Your task to perform on an android device: What's on my calendar today? Image 0: 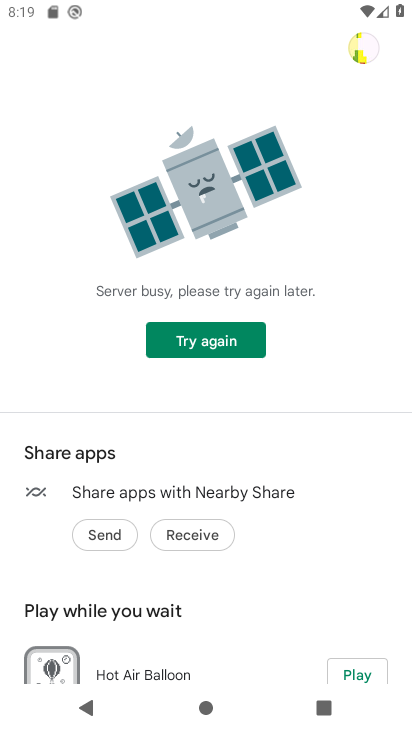
Step 0: press home button
Your task to perform on an android device: What's on my calendar today? Image 1: 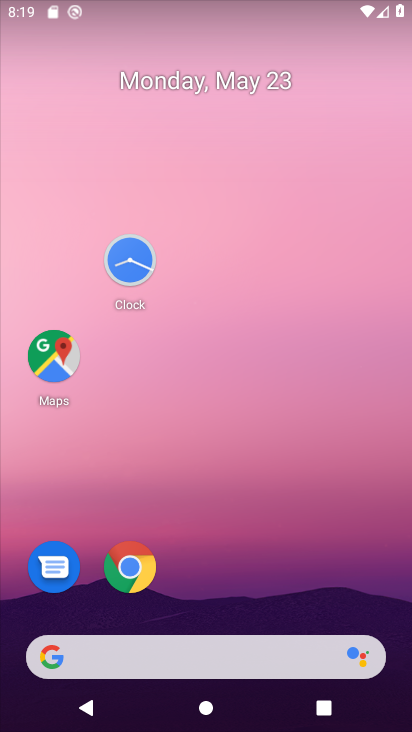
Step 1: drag from (286, 589) to (283, 109)
Your task to perform on an android device: What's on my calendar today? Image 2: 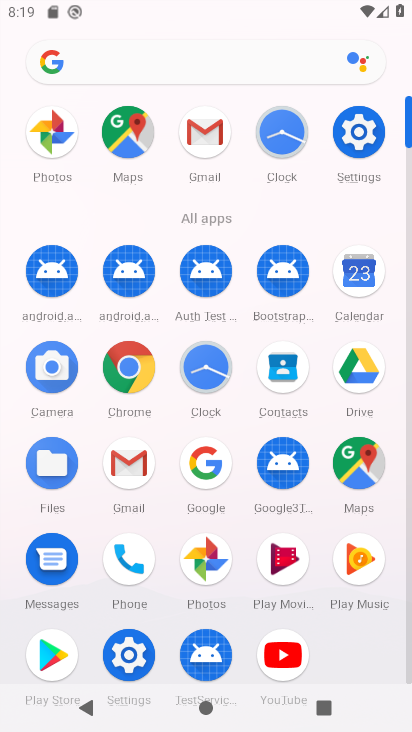
Step 2: drag from (368, 273) to (70, 278)
Your task to perform on an android device: What's on my calendar today? Image 3: 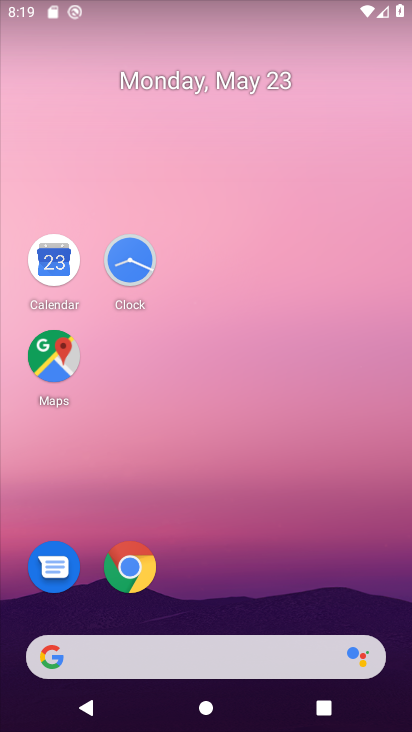
Step 3: click (67, 275)
Your task to perform on an android device: What's on my calendar today? Image 4: 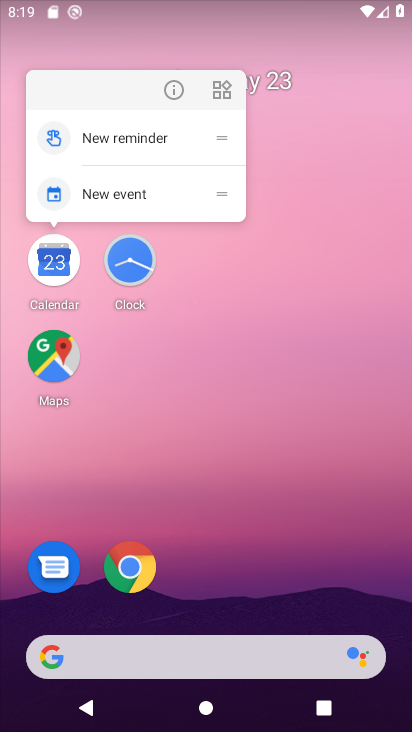
Step 4: click (62, 267)
Your task to perform on an android device: What's on my calendar today? Image 5: 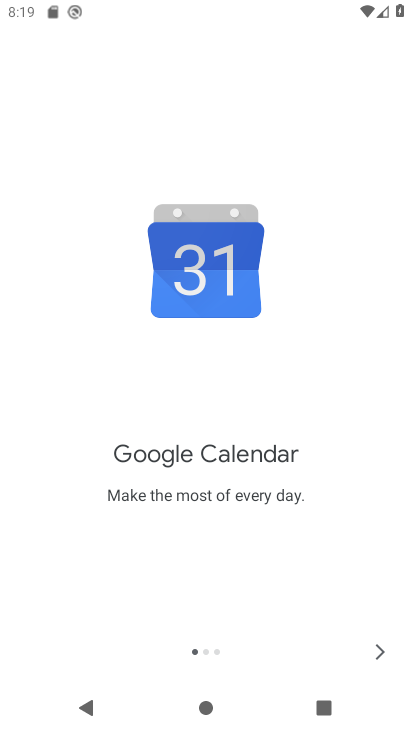
Step 5: click (379, 647)
Your task to perform on an android device: What's on my calendar today? Image 6: 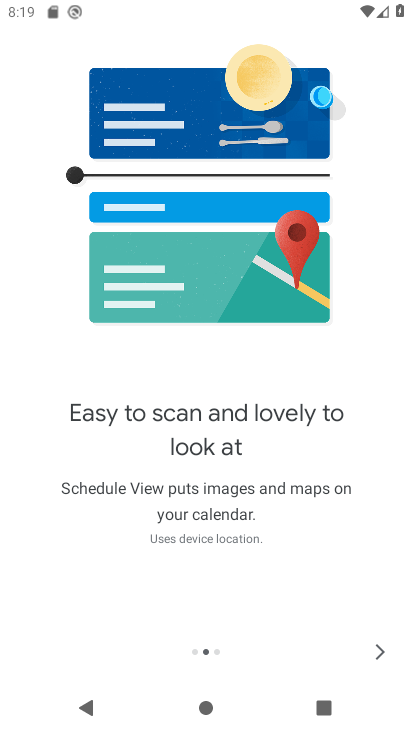
Step 6: click (387, 638)
Your task to perform on an android device: What's on my calendar today? Image 7: 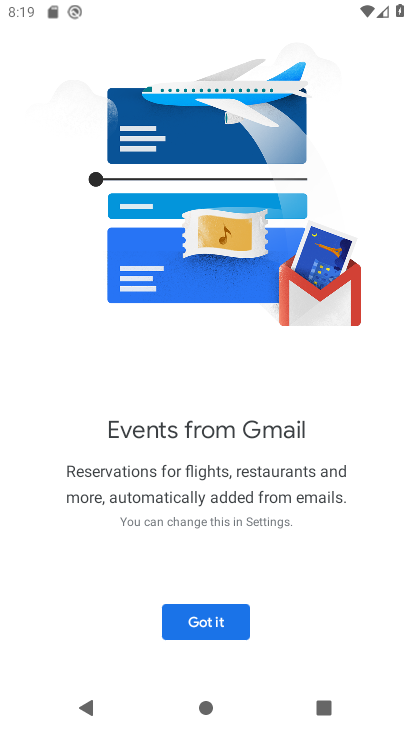
Step 7: click (223, 633)
Your task to perform on an android device: What's on my calendar today? Image 8: 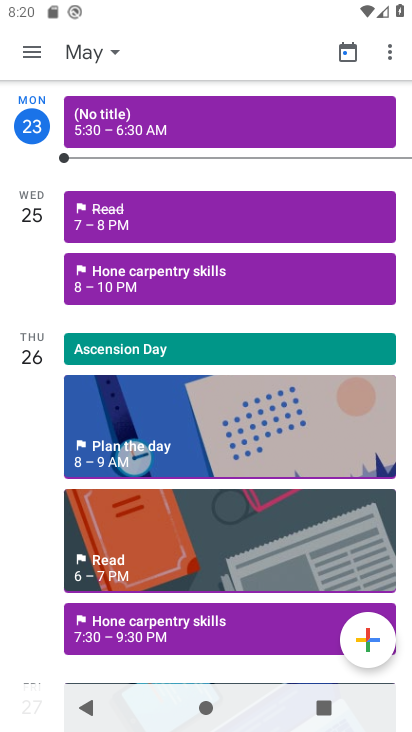
Step 8: click (45, 43)
Your task to perform on an android device: What's on my calendar today? Image 9: 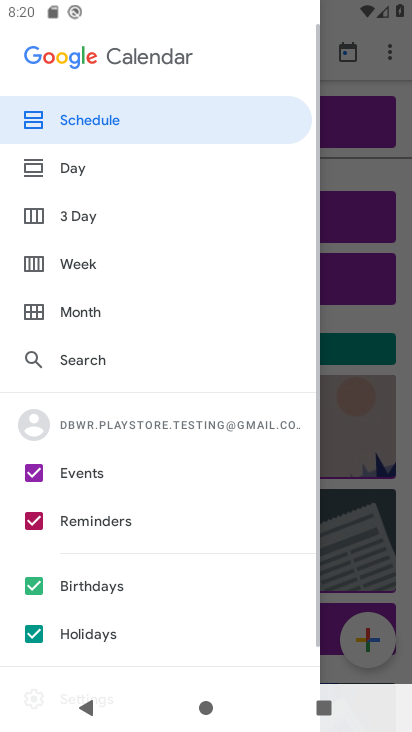
Step 9: click (107, 179)
Your task to perform on an android device: What's on my calendar today? Image 10: 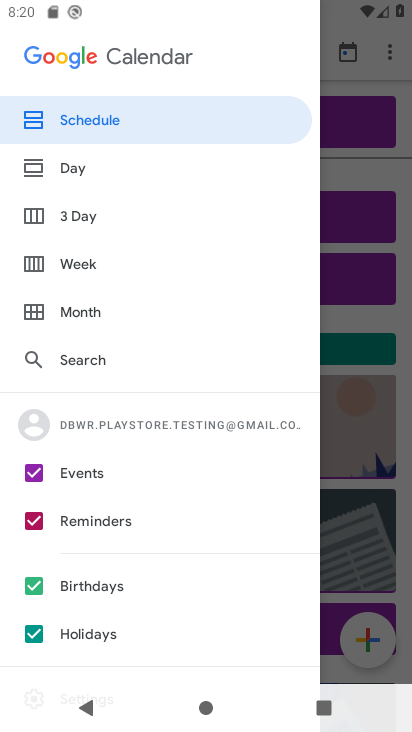
Step 10: click (93, 168)
Your task to perform on an android device: What's on my calendar today? Image 11: 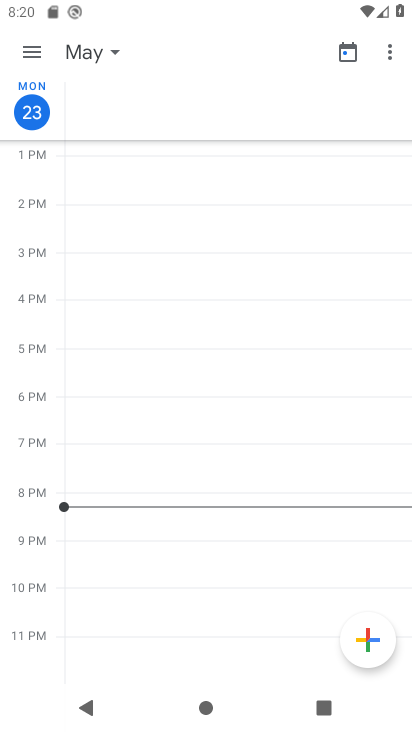
Step 11: drag from (232, 576) to (256, 75)
Your task to perform on an android device: What's on my calendar today? Image 12: 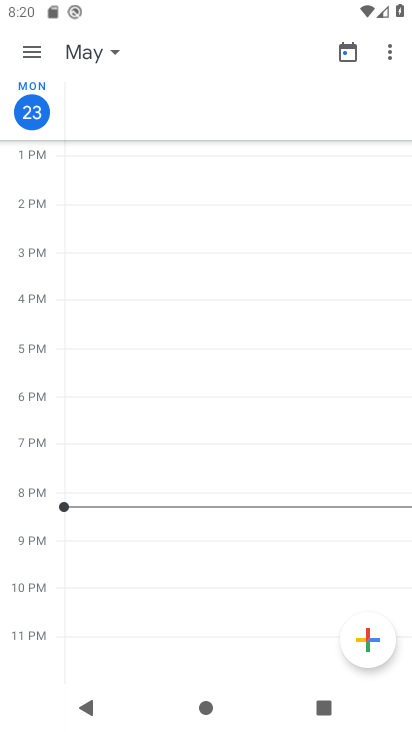
Step 12: drag from (335, 94) to (15, 98)
Your task to perform on an android device: What's on my calendar today? Image 13: 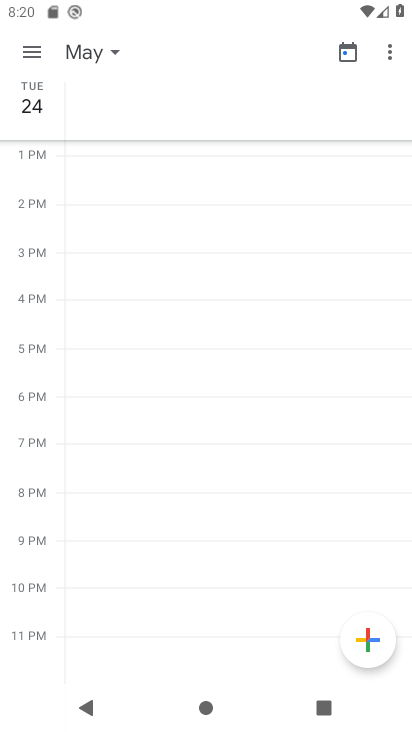
Step 13: click (168, 105)
Your task to perform on an android device: What's on my calendar today? Image 14: 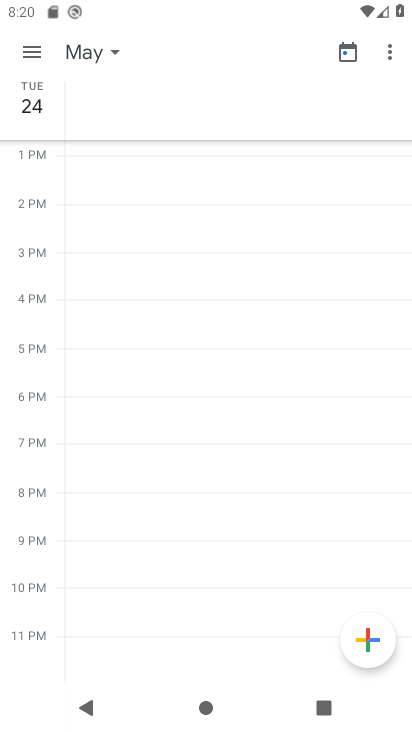
Step 14: click (30, 99)
Your task to perform on an android device: What's on my calendar today? Image 15: 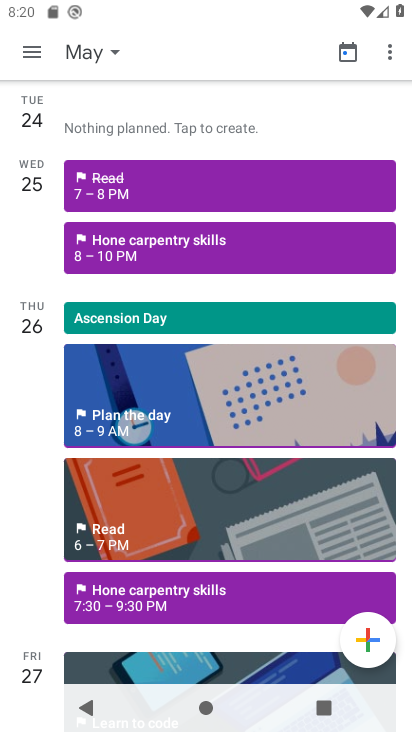
Step 15: click (36, 102)
Your task to perform on an android device: What's on my calendar today? Image 16: 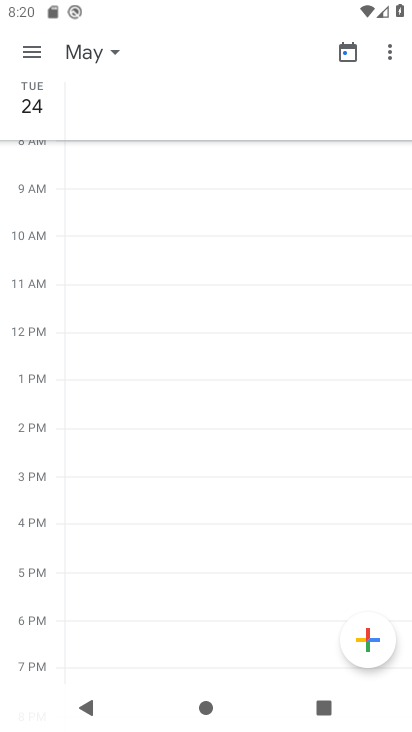
Step 16: task complete